Your task to perform on an android device: Open settings Image 0: 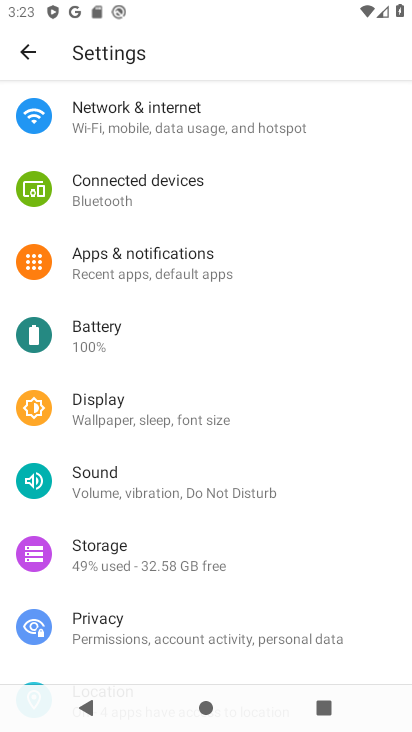
Step 0: drag from (139, 179) to (195, 364)
Your task to perform on an android device: Open settings Image 1: 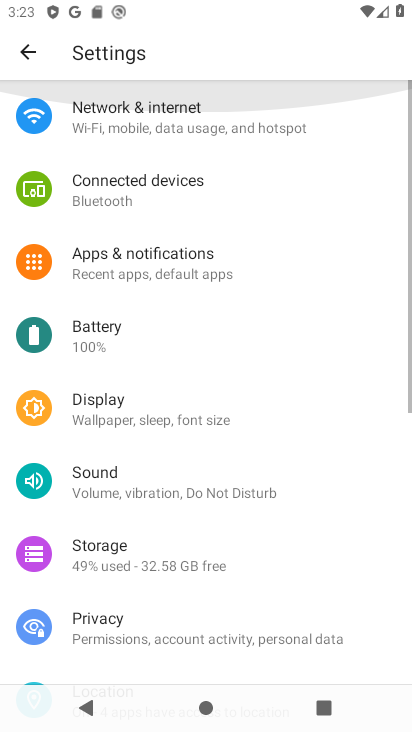
Step 1: task complete